Your task to perform on an android device: change the clock display to analog Image 0: 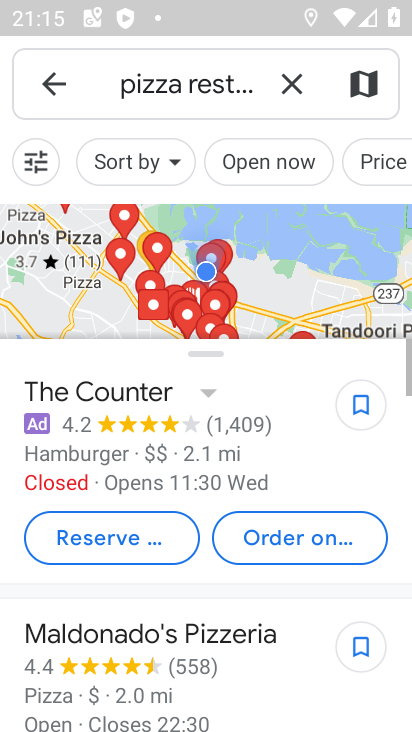
Step 0: press home button
Your task to perform on an android device: change the clock display to analog Image 1: 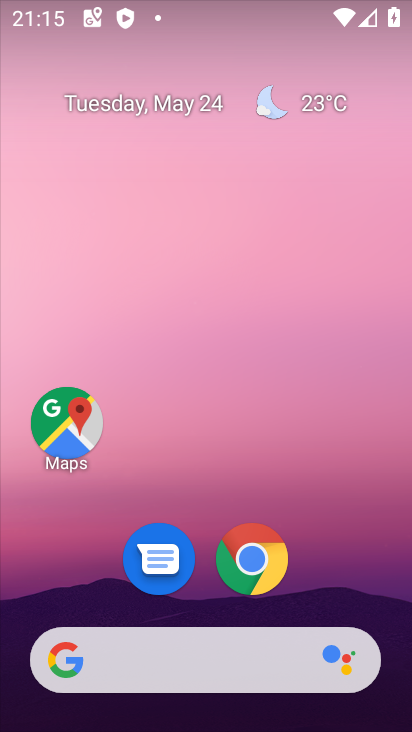
Step 1: drag from (310, 553) to (314, 63)
Your task to perform on an android device: change the clock display to analog Image 2: 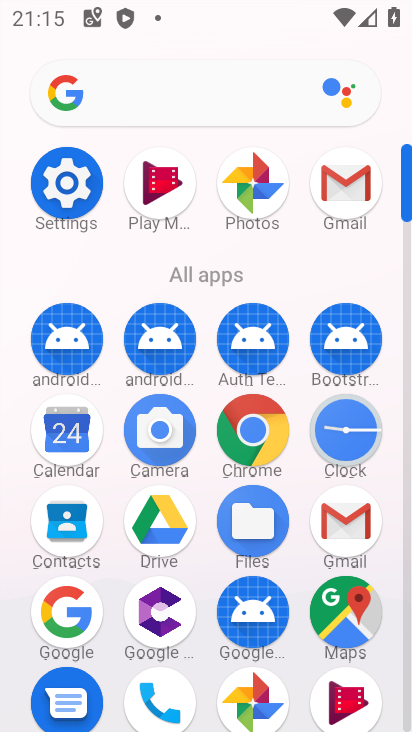
Step 2: click (347, 412)
Your task to perform on an android device: change the clock display to analog Image 3: 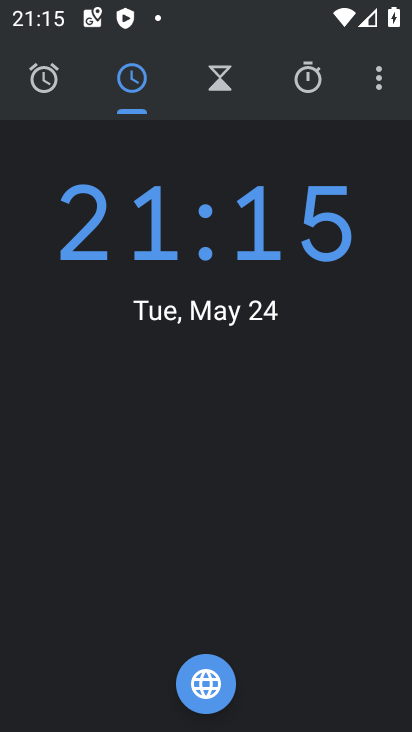
Step 3: click (377, 77)
Your task to perform on an android device: change the clock display to analog Image 4: 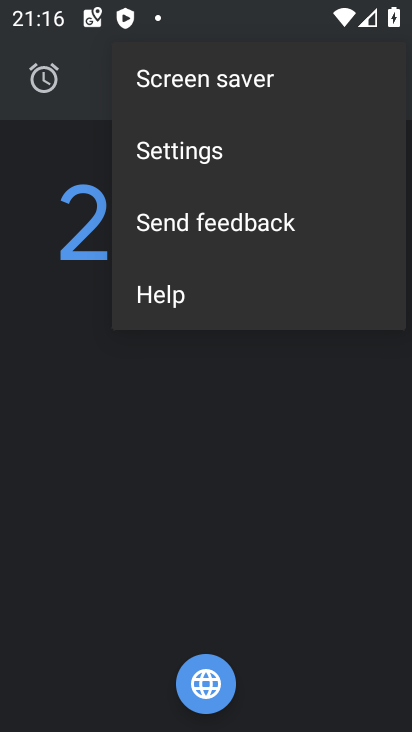
Step 4: click (221, 163)
Your task to perform on an android device: change the clock display to analog Image 5: 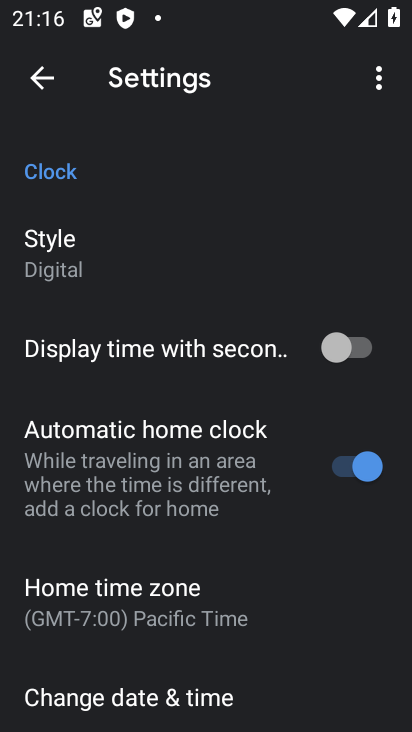
Step 5: click (30, 255)
Your task to perform on an android device: change the clock display to analog Image 6: 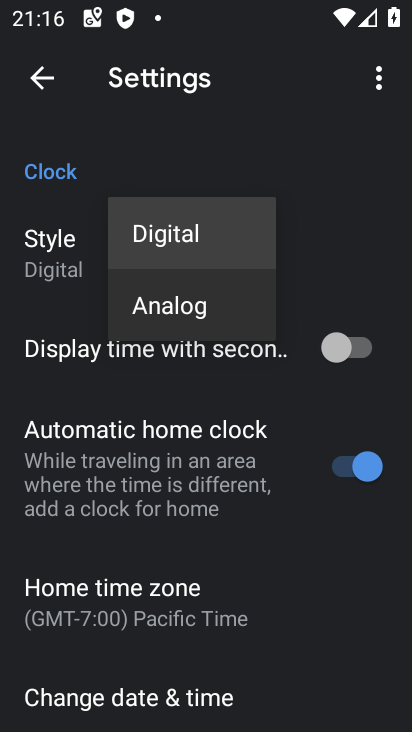
Step 6: click (239, 322)
Your task to perform on an android device: change the clock display to analog Image 7: 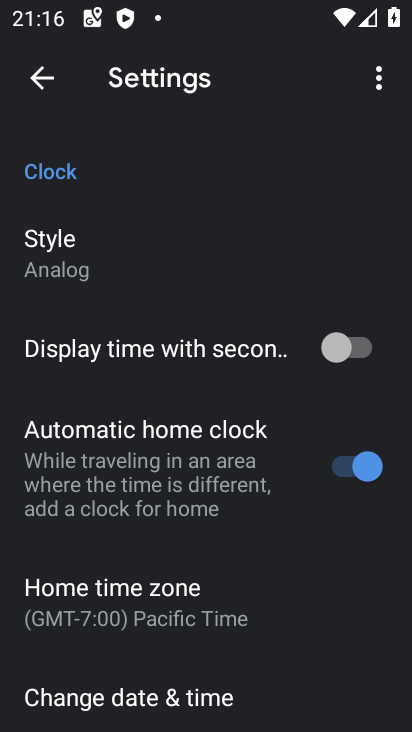
Step 7: task complete